Your task to perform on an android device: Open Google Chrome Image 0: 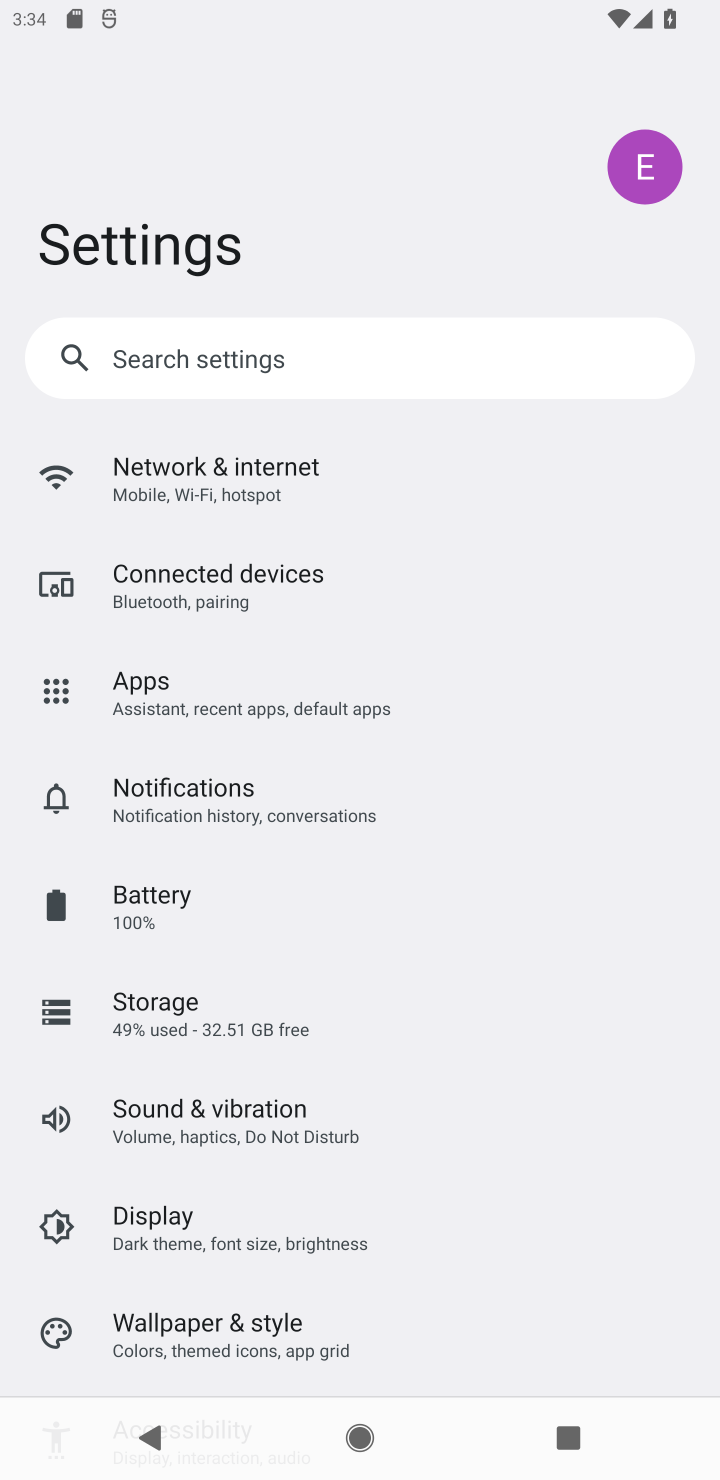
Step 0: press home button
Your task to perform on an android device: Open Google Chrome Image 1: 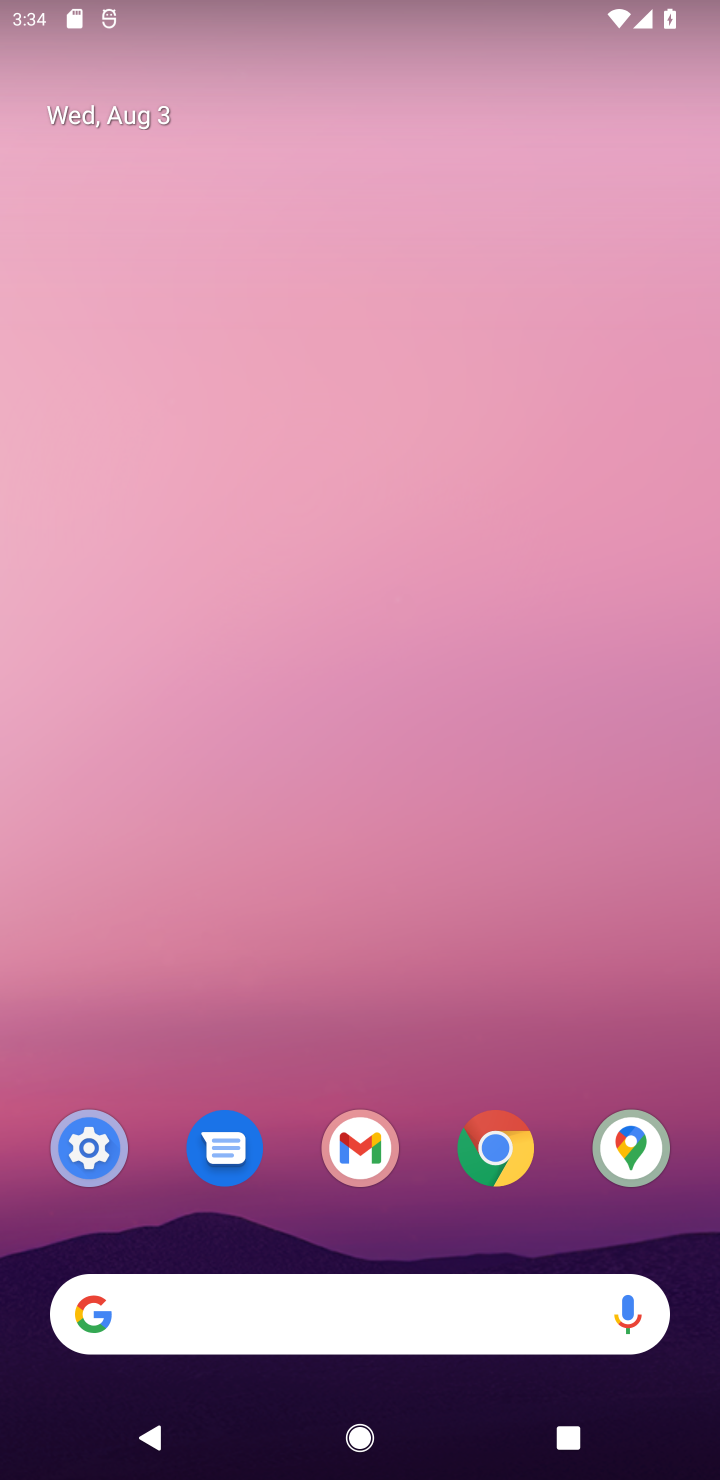
Step 1: drag from (438, 1209) to (532, 336)
Your task to perform on an android device: Open Google Chrome Image 2: 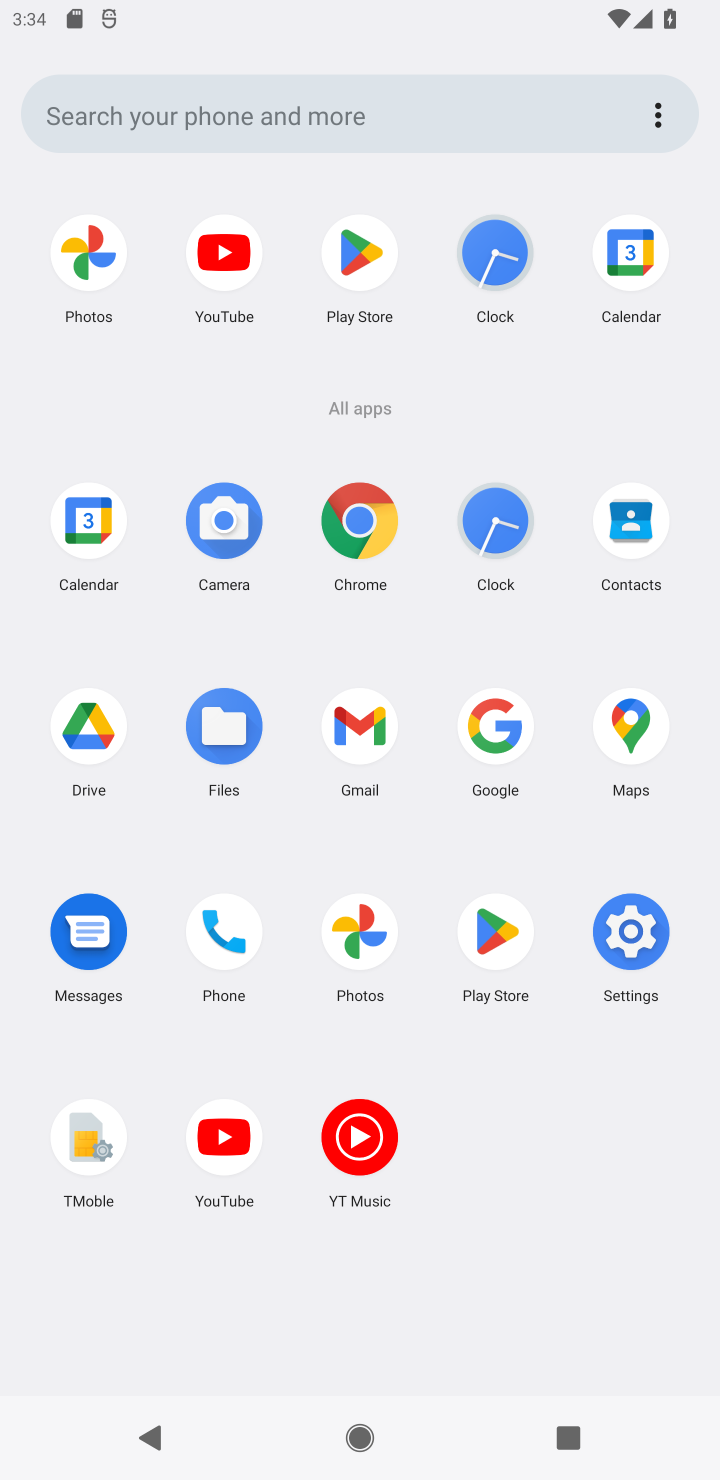
Step 2: click (359, 527)
Your task to perform on an android device: Open Google Chrome Image 3: 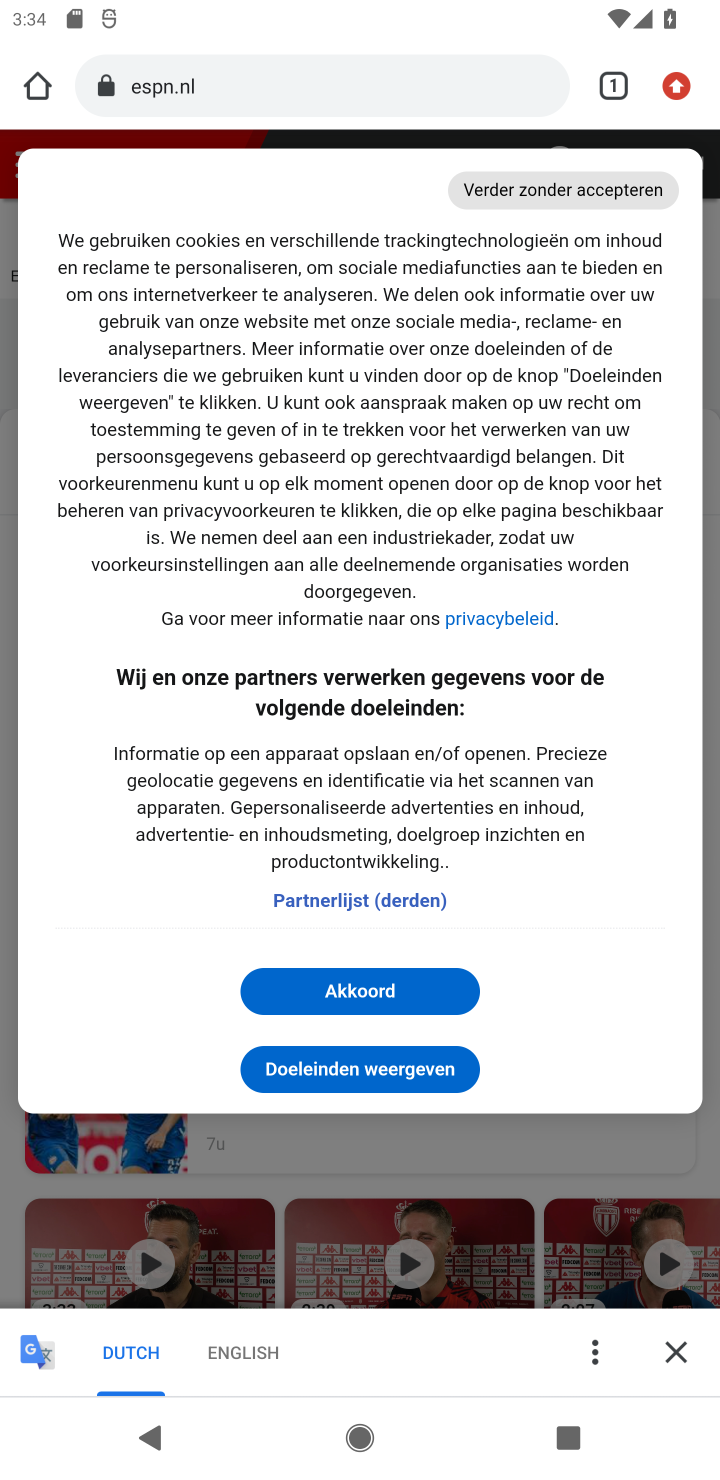
Step 3: task complete